Your task to perform on an android device: Clear the cart on newegg. Search for apple airpods on newegg, select the first entry, add it to the cart, then select checkout. Image 0: 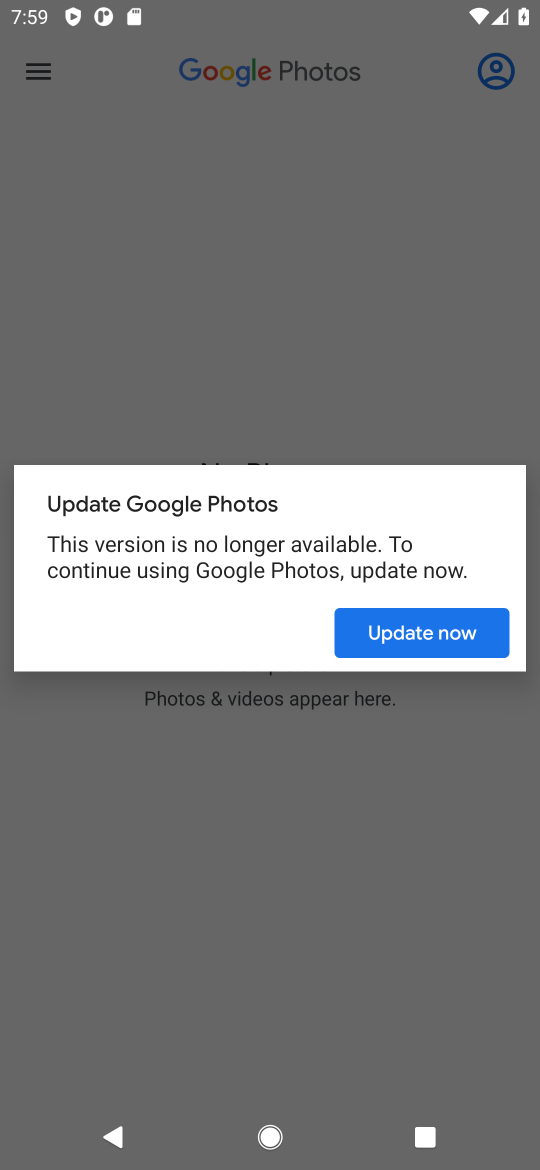
Step 0: press home button
Your task to perform on an android device: Clear the cart on newegg. Search for apple airpods on newegg, select the first entry, add it to the cart, then select checkout. Image 1: 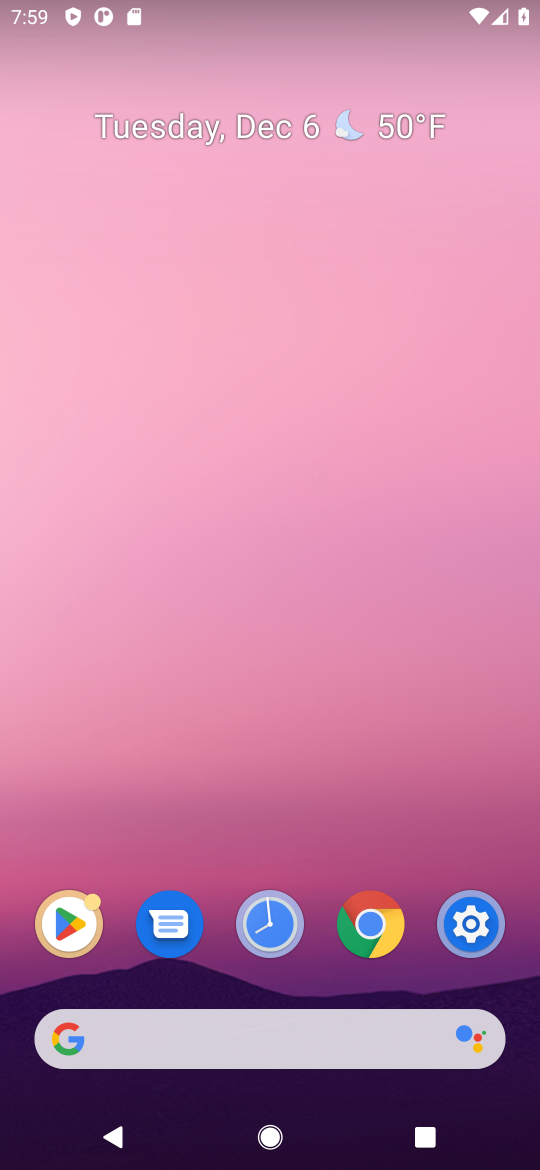
Step 1: click (147, 1029)
Your task to perform on an android device: Clear the cart on newegg. Search for apple airpods on newegg, select the first entry, add it to the cart, then select checkout. Image 2: 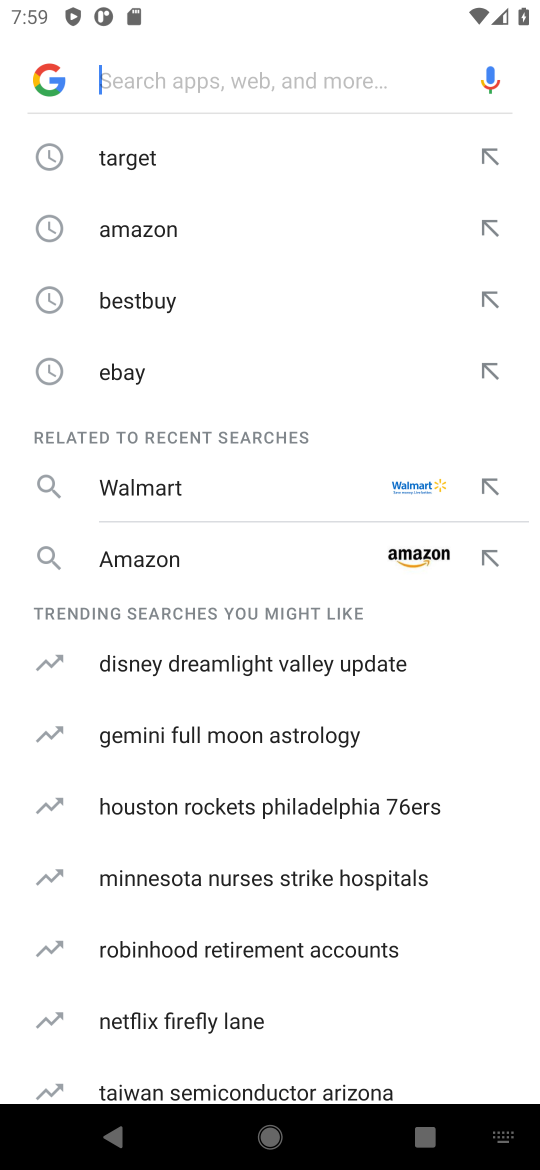
Step 2: type "newegg"
Your task to perform on an android device: Clear the cart on newegg. Search for apple airpods on newegg, select the first entry, add it to the cart, then select checkout. Image 3: 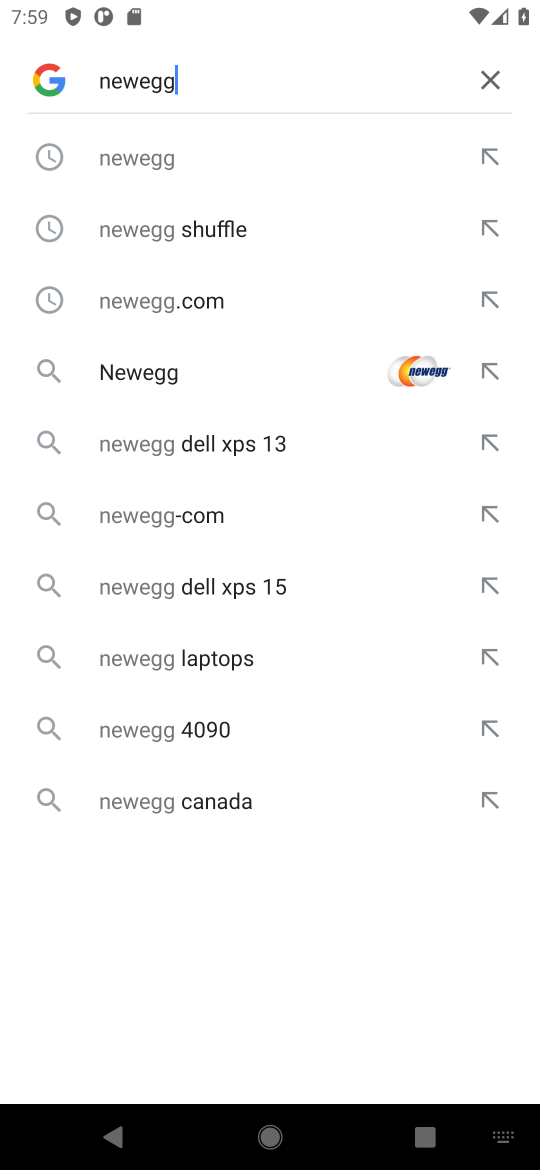
Step 3: click (228, 362)
Your task to perform on an android device: Clear the cart on newegg. Search for apple airpods on newegg, select the first entry, add it to the cart, then select checkout. Image 4: 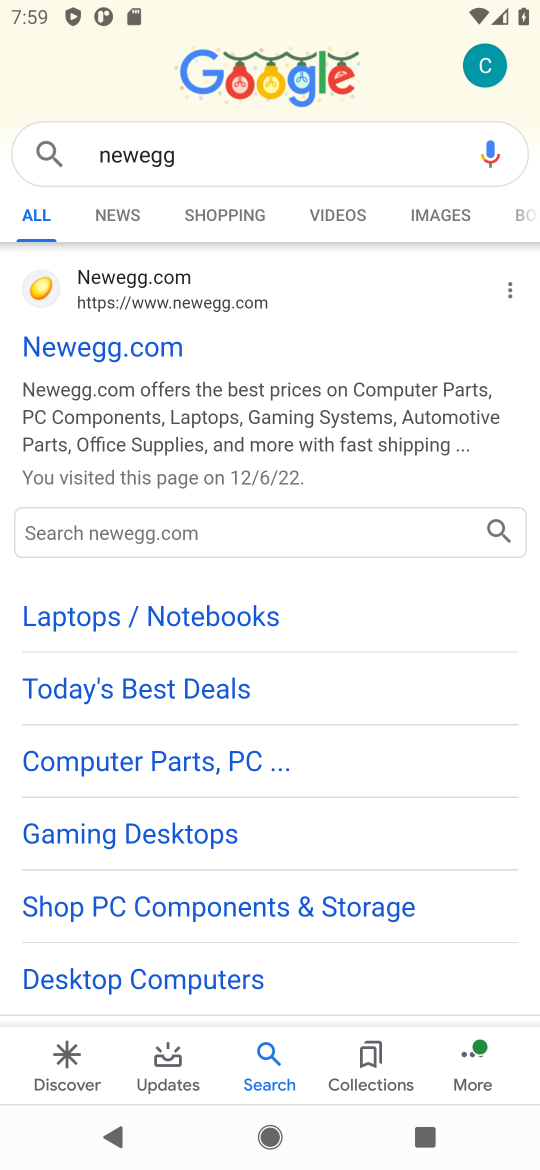
Step 4: click (172, 342)
Your task to perform on an android device: Clear the cart on newegg. Search for apple airpods on newegg, select the first entry, add it to the cart, then select checkout. Image 5: 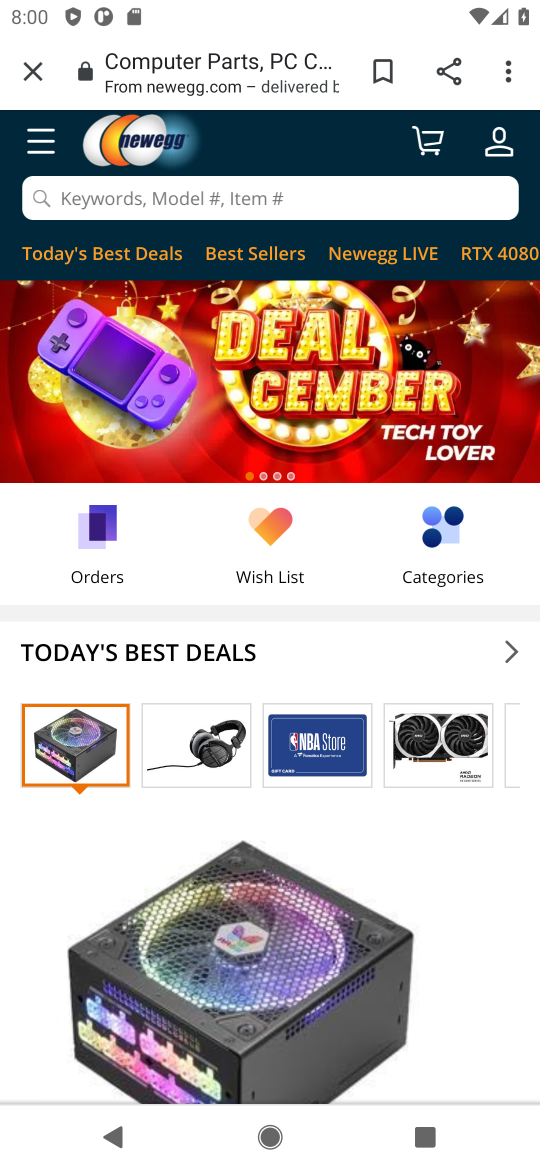
Step 5: click (150, 197)
Your task to perform on an android device: Clear the cart on newegg. Search for apple airpods on newegg, select the first entry, add it to the cart, then select checkout. Image 6: 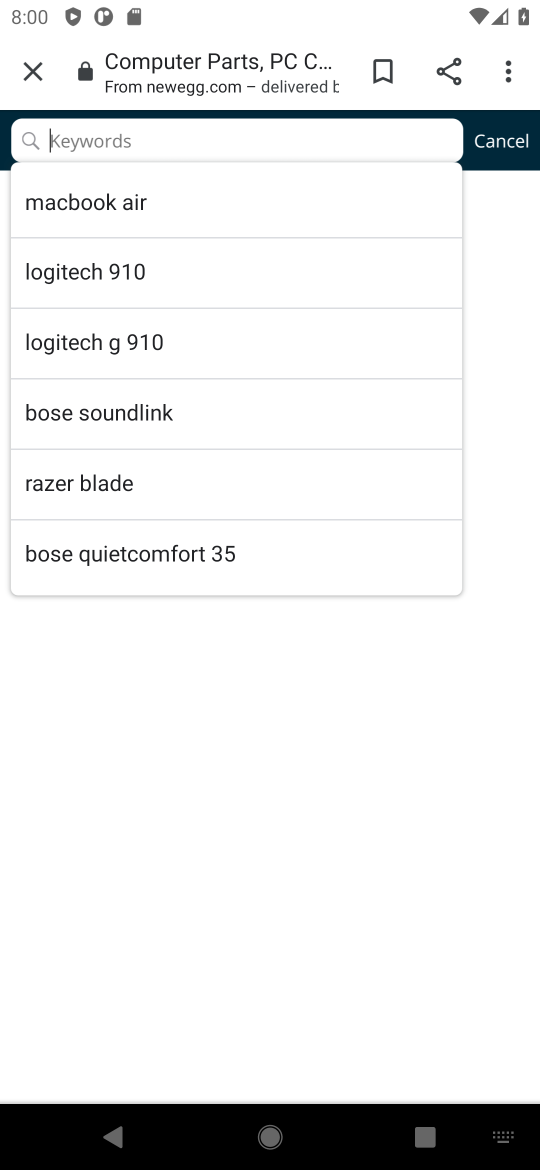
Step 6: type "apple airpod"
Your task to perform on an android device: Clear the cart on newegg. Search for apple airpods on newegg, select the first entry, add it to the cart, then select checkout. Image 7: 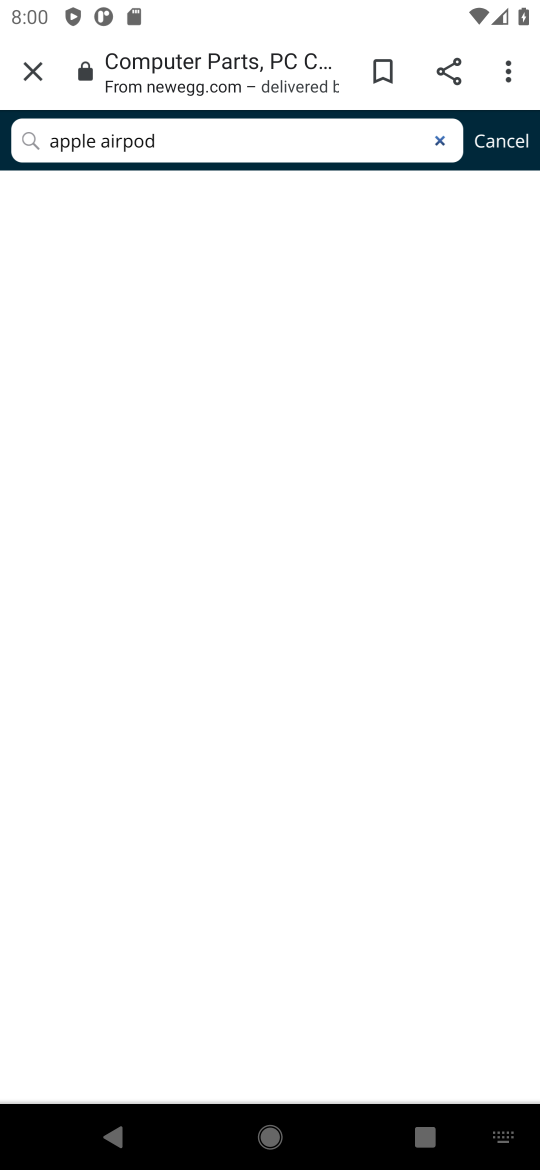
Step 7: task complete